Your task to perform on an android device: See recent photos Image 0: 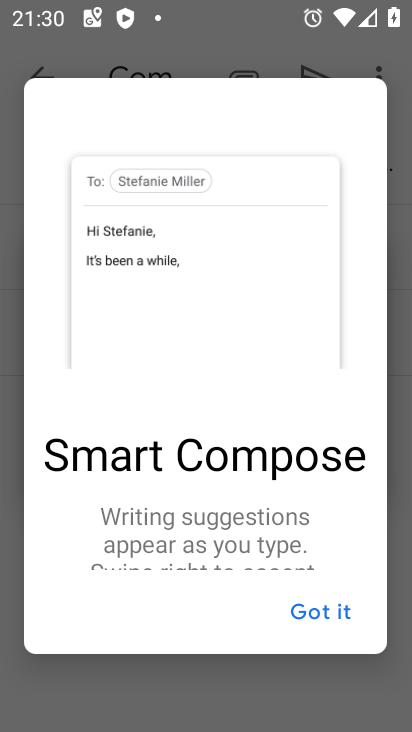
Step 0: press home button
Your task to perform on an android device: See recent photos Image 1: 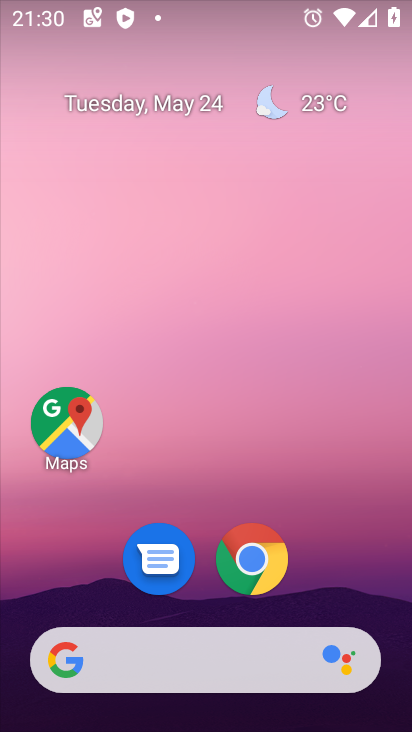
Step 1: drag from (312, 576) to (319, 137)
Your task to perform on an android device: See recent photos Image 2: 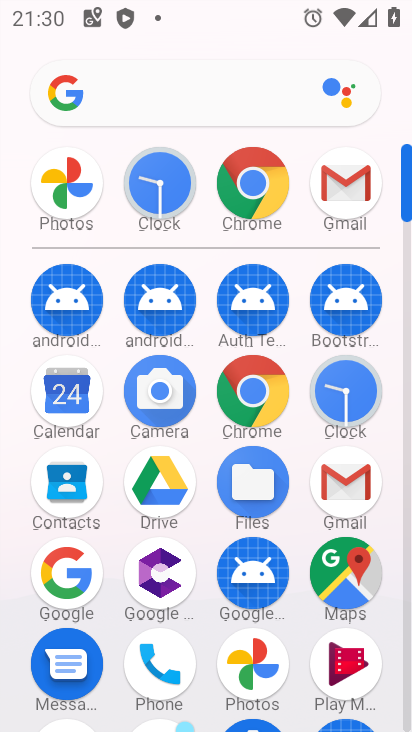
Step 2: click (77, 209)
Your task to perform on an android device: See recent photos Image 3: 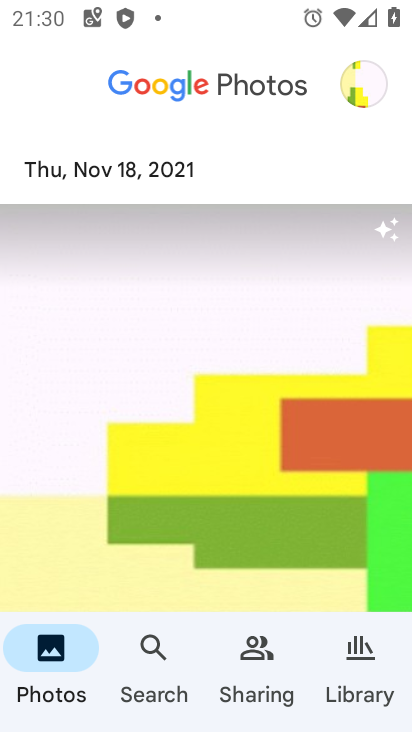
Step 3: task complete